Your task to perform on an android device: Open Wikipedia Image 0: 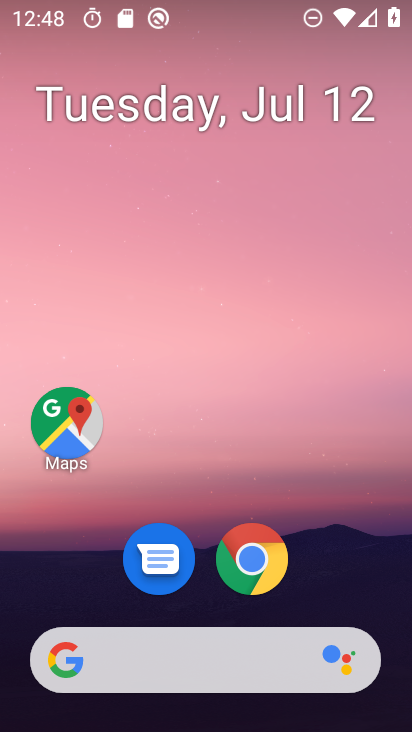
Step 0: click (237, 544)
Your task to perform on an android device: Open Wikipedia Image 1: 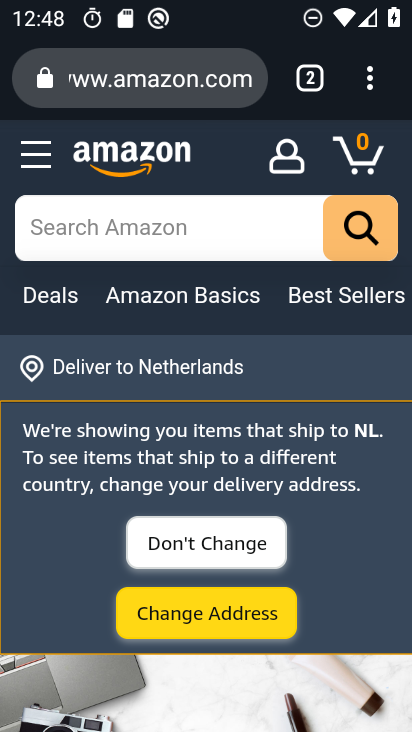
Step 1: click (312, 64)
Your task to perform on an android device: Open Wikipedia Image 2: 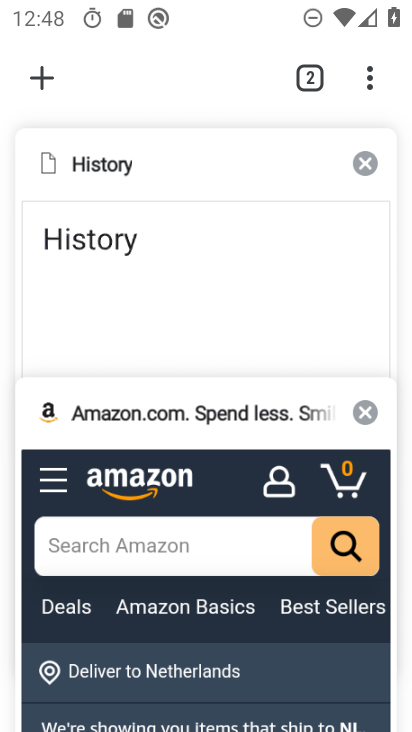
Step 2: click (46, 68)
Your task to perform on an android device: Open Wikipedia Image 3: 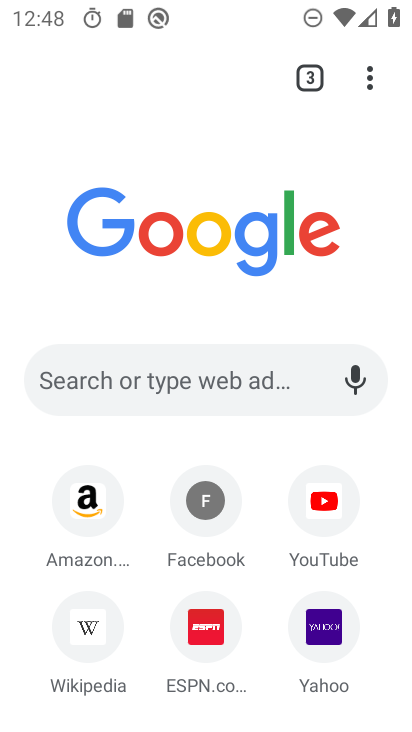
Step 3: click (92, 651)
Your task to perform on an android device: Open Wikipedia Image 4: 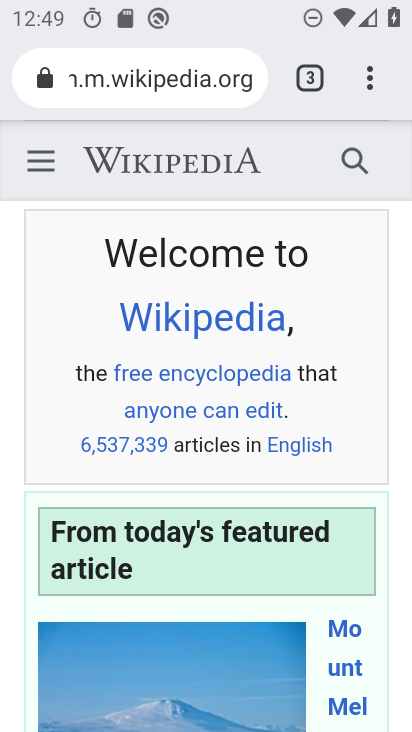
Step 4: task complete